Your task to perform on an android device: Open Android settings Image 0: 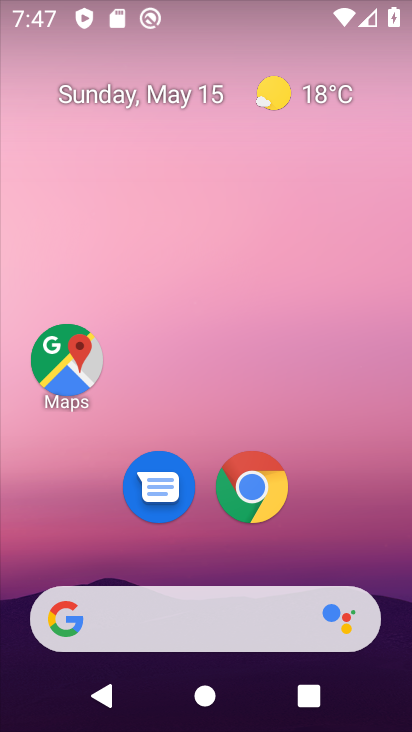
Step 0: drag from (209, 556) to (244, 4)
Your task to perform on an android device: Open Android settings Image 1: 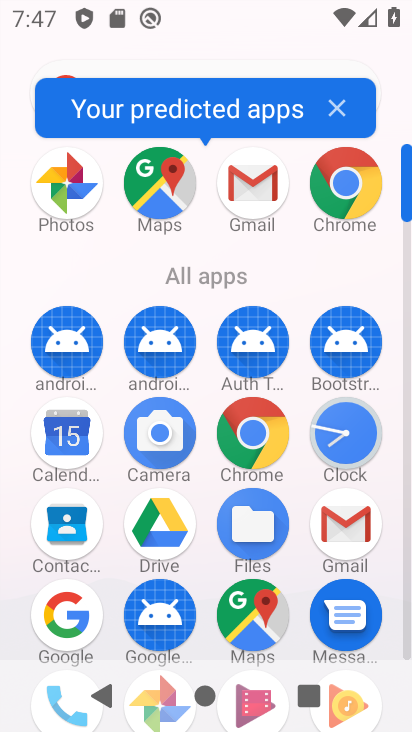
Step 1: drag from (208, 578) to (216, 170)
Your task to perform on an android device: Open Android settings Image 2: 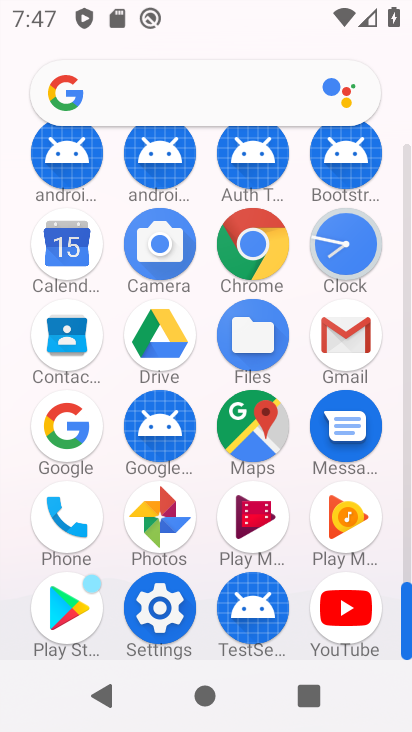
Step 2: click (169, 619)
Your task to perform on an android device: Open Android settings Image 3: 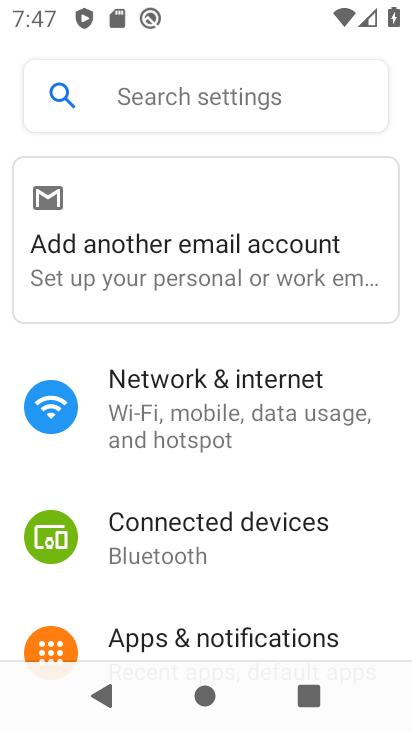
Step 3: task complete